Your task to perform on an android device: Open eBay Image 0: 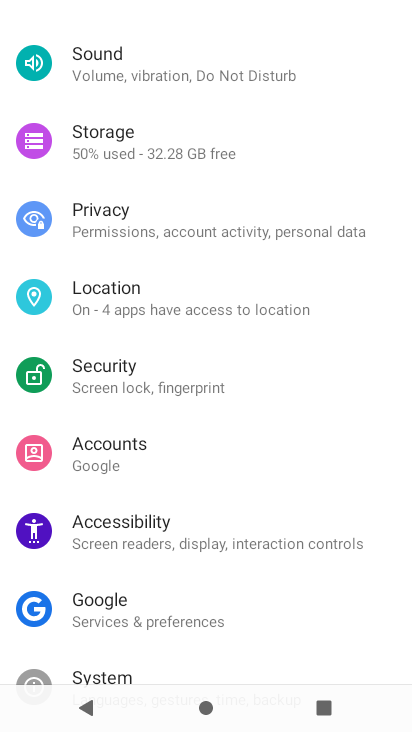
Step 0: press home button
Your task to perform on an android device: Open eBay Image 1: 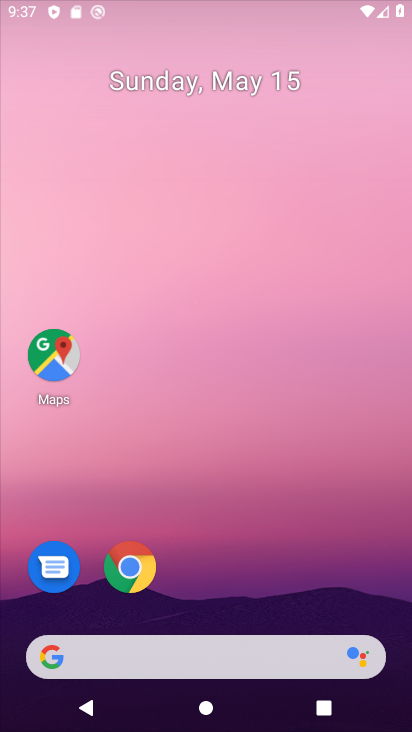
Step 1: drag from (244, 506) to (240, 125)
Your task to perform on an android device: Open eBay Image 2: 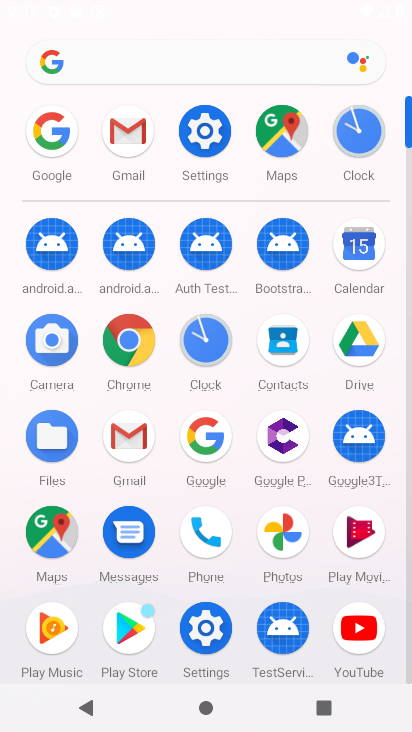
Step 2: click (57, 125)
Your task to perform on an android device: Open eBay Image 3: 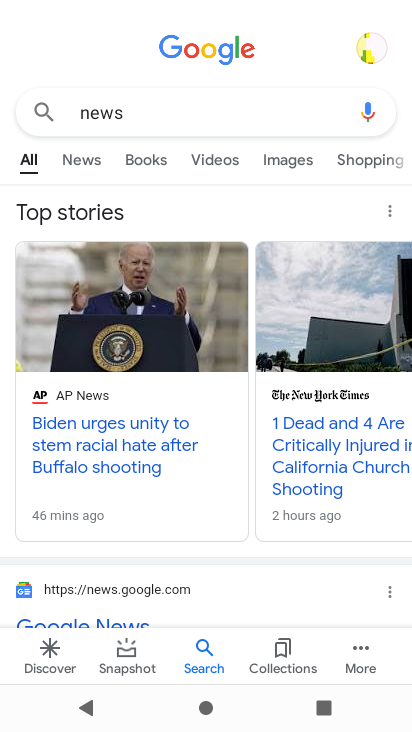
Step 3: click (202, 113)
Your task to perform on an android device: Open eBay Image 4: 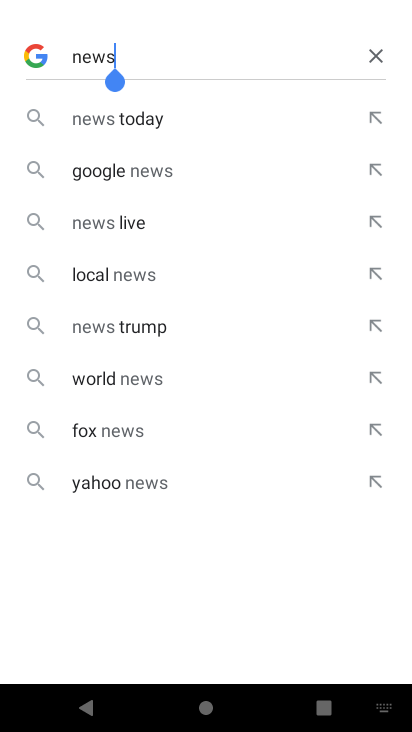
Step 4: click (364, 60)
Your task to perform on an android device: Open eBay Image 5: 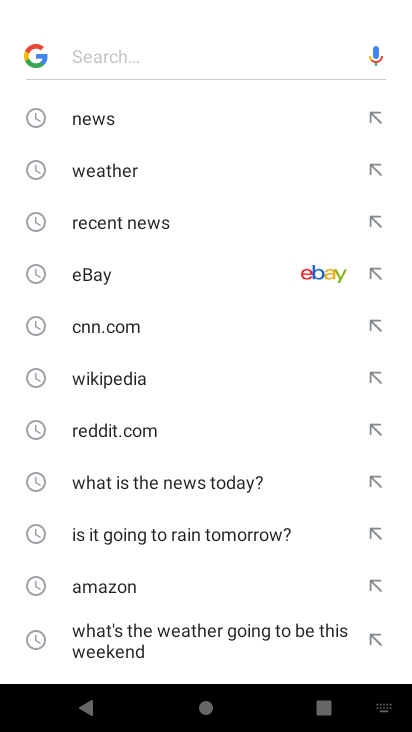
Step 5: click (147, 271)
Your task to perform on an android device: Open eBay Image 6: 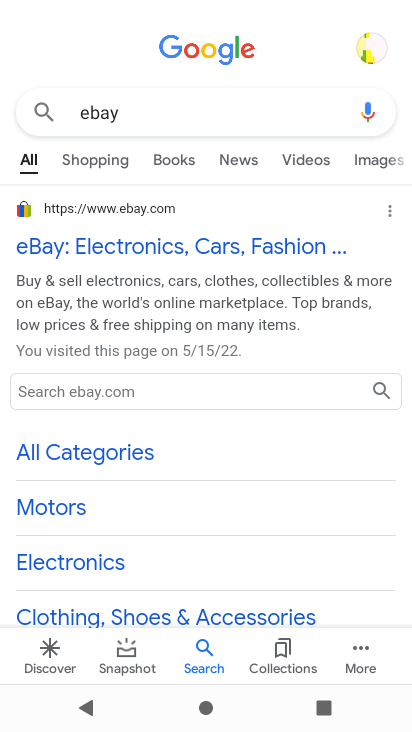
Step 6: task complete